Your task to perform on an android device: Go to Maps Image 0: 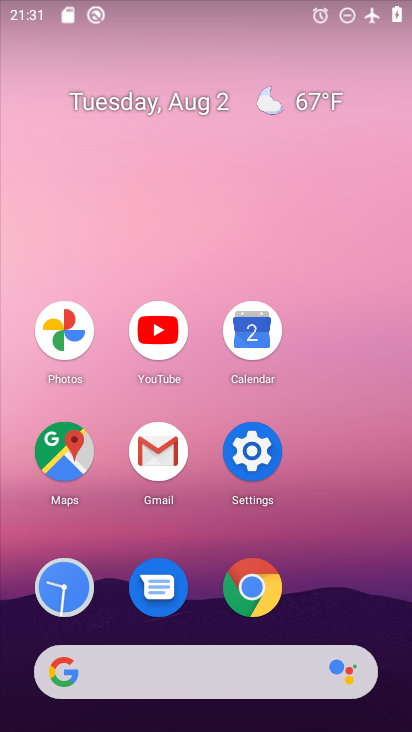
Step 0: click (57, 450)
Your task to perform on an android device: Go to Maps Image 1: 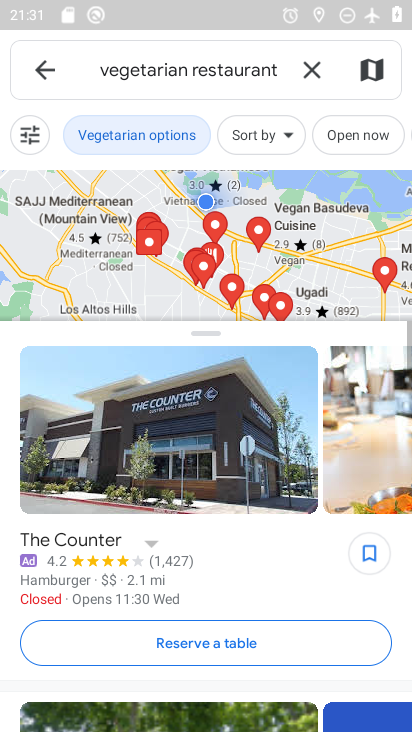
Step 1: click (37, 67)
Your task to perform on an android device: Go to Maps Image 2: 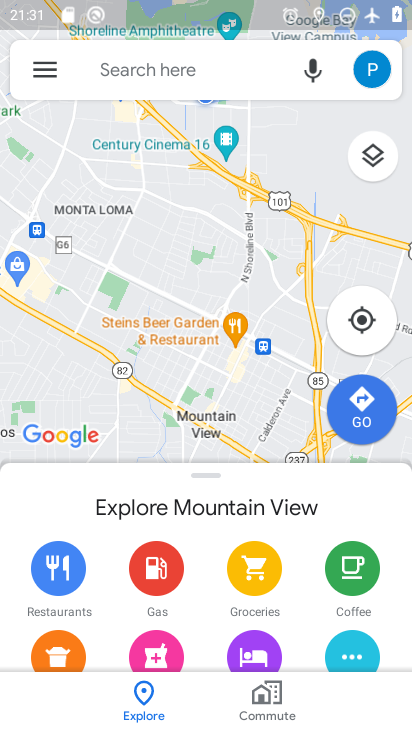
Step 2: task complete